Your task to perform on an android device: Go to Google maps Image 0: 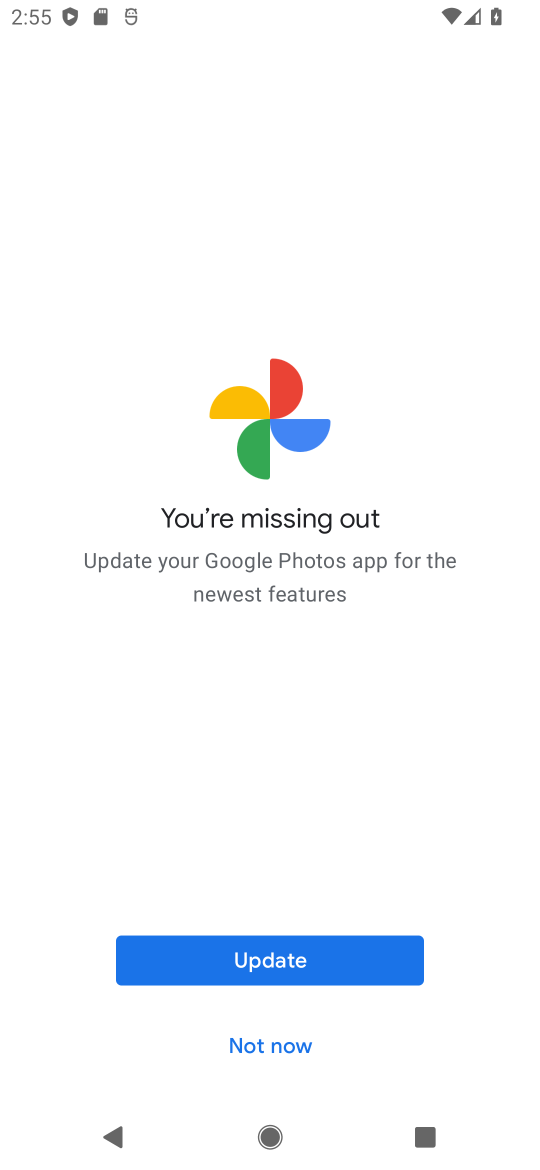
Step 0: press home button
Your task to perform on an android device: Go to Google maps Image 1: 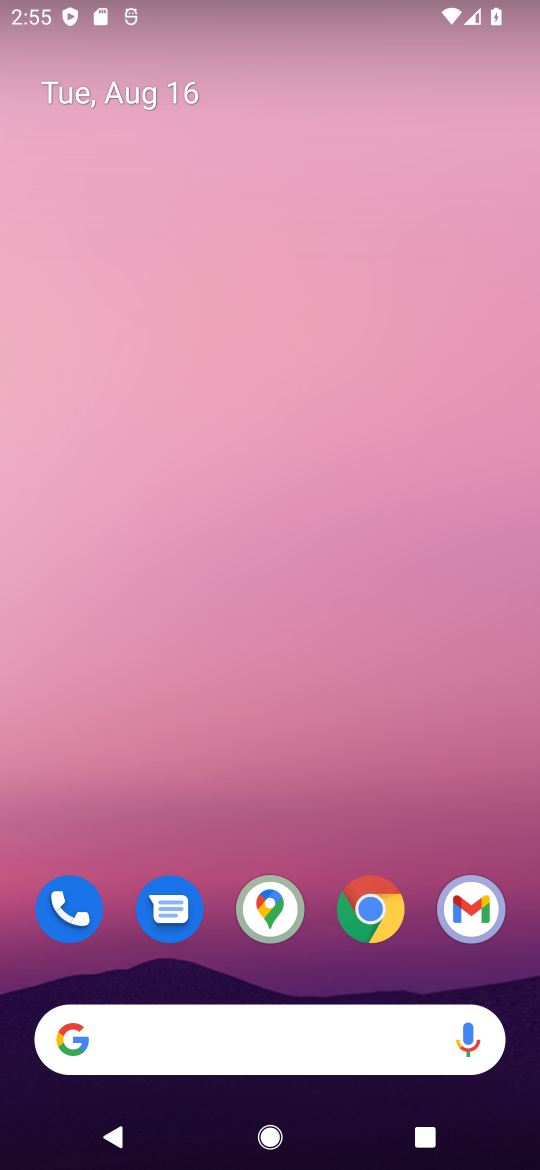
Step 1: click (265, 909)
Your task to perform on an android device: Go to Google maps Image 2: 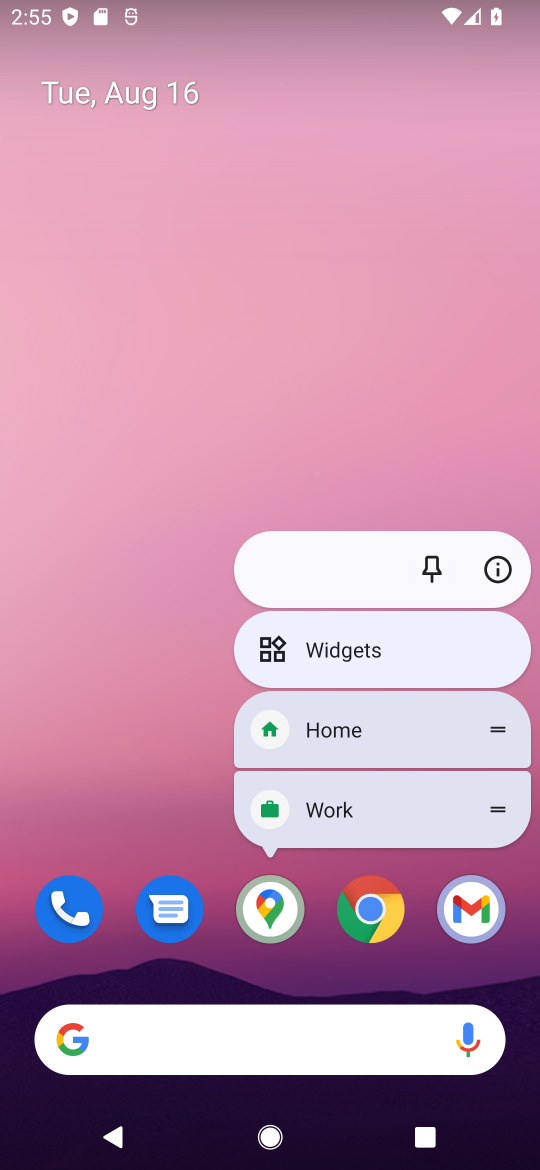
Step 2: click (270, 918)
Your task to perform on an android device: Go to Google maps Image 3: 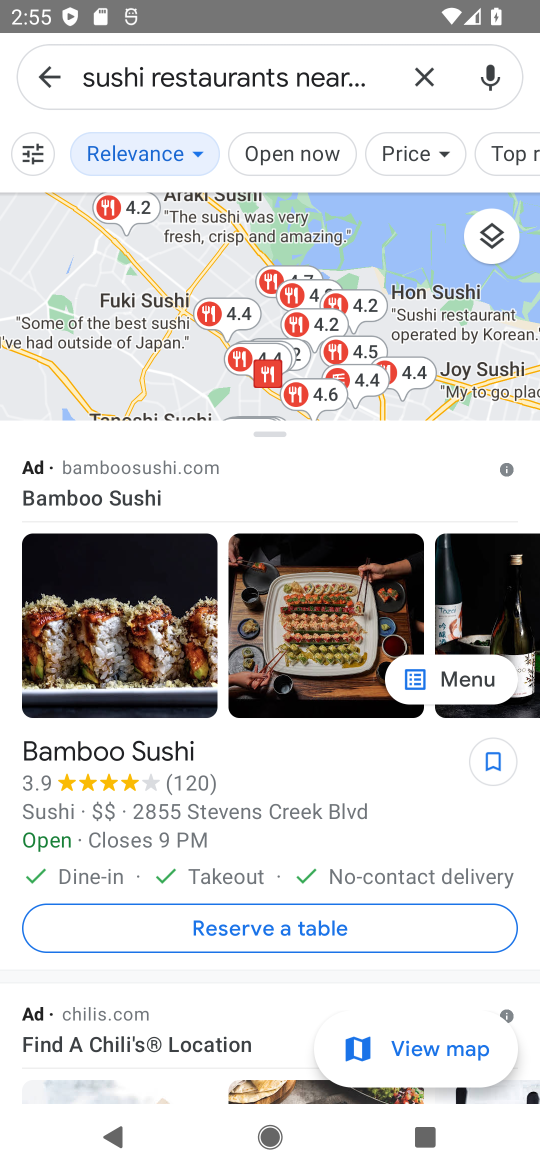
Step 3: task complete